Your task to perform on an android device: open a bookmark in the chrome app Image 0: 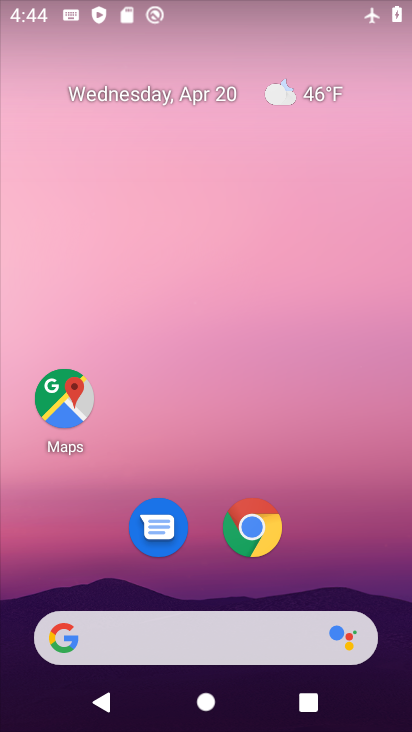
Step 0: click (257, 529)
Your task to perform on an android device: open a bookmark in the chrome app Image 1: 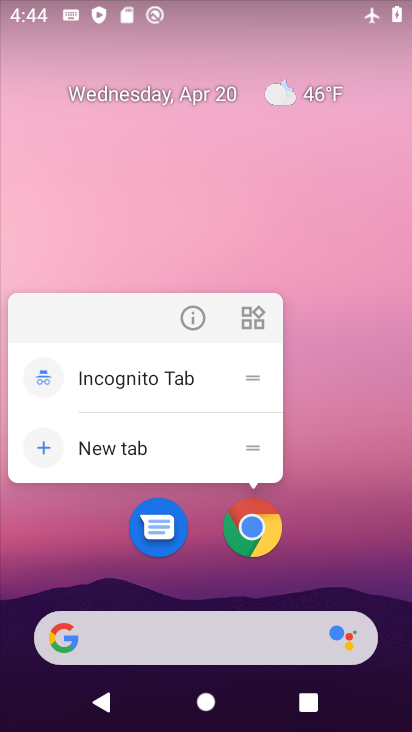
Step 1: click (193, 326)
Your task to perform on an android device: open a bookmark in the chrome app Image 2: 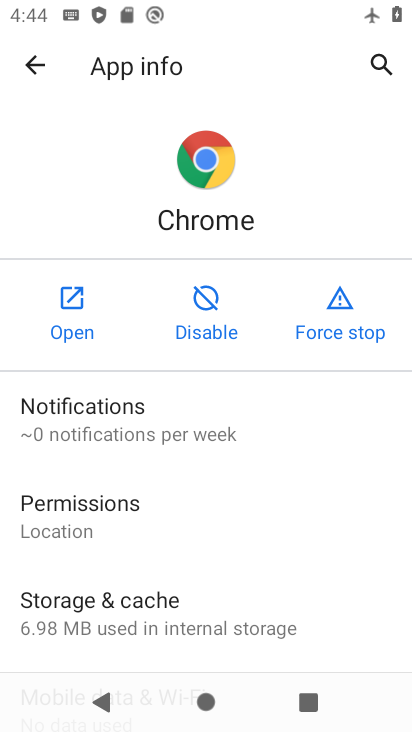
Step 2: click (93, 308)
Your task to perform on an android device: open a bookmark in the chrome app Image 3: 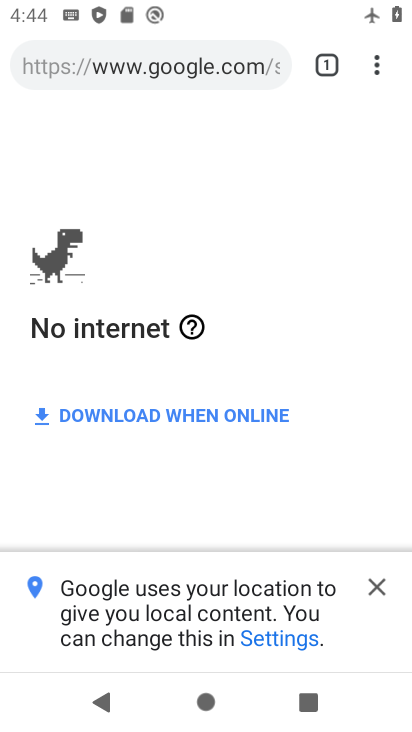
Step 3: click (377, 67)
Your task to perform on an android device: open a bookmark in the chrome app Image 4: 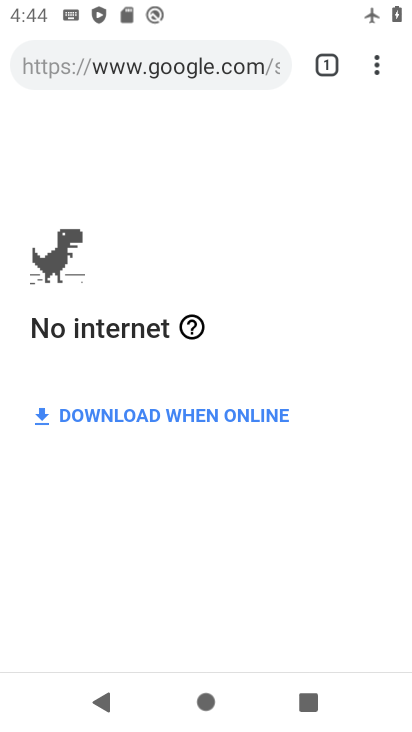
Step 4: click (378, 61)
Your task to perform on an android device: open a bookmark in the chrome app Image 5: 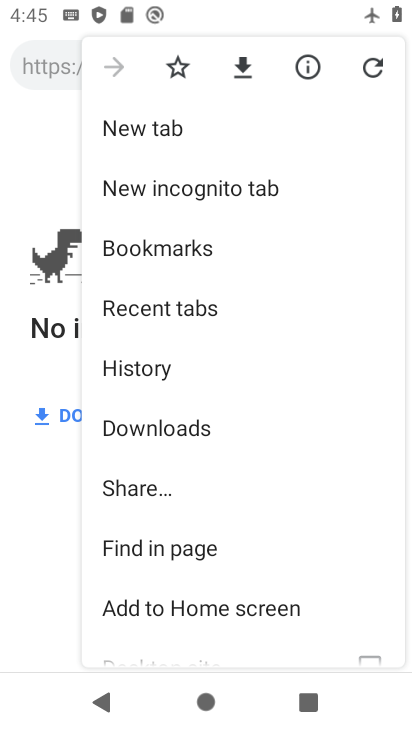
Step 5: click (198, 236)
Your task to perform on an android device: open a bookmark in the chrome app Image 6: 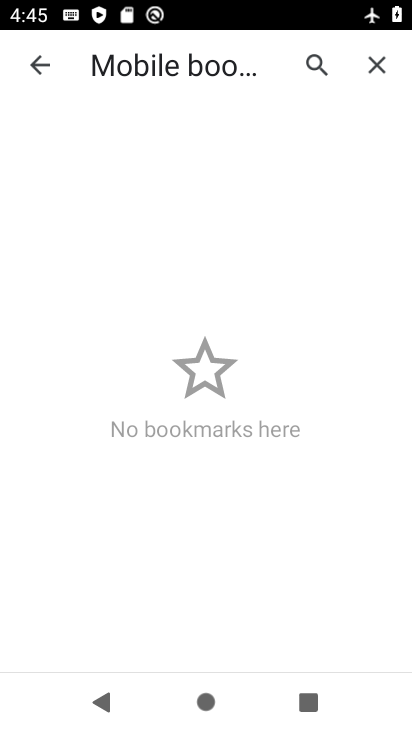
Step 6: task complete